Your task to perform on an android device: set an alarm Image 0: 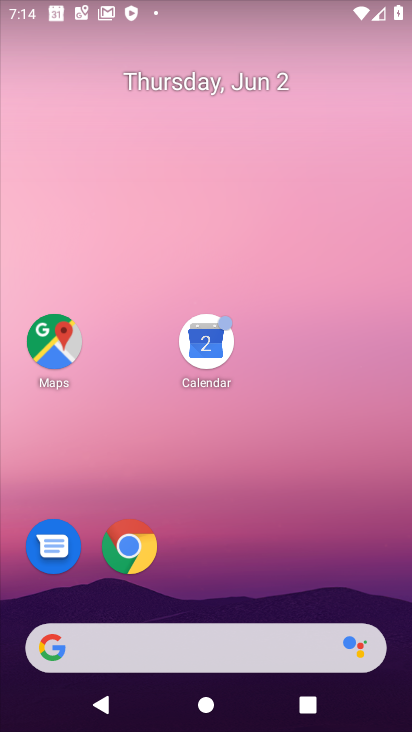
Step 0: drag from (291, 669) to (335, 78)
Your task to perform on an android device: set an alarm Image 1: 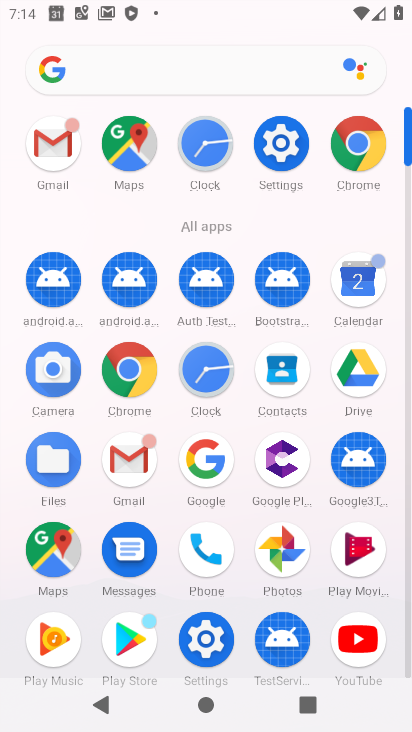
Step 1: click (216, 374)
Your task to perform on an android device: set an alarm Image 2: 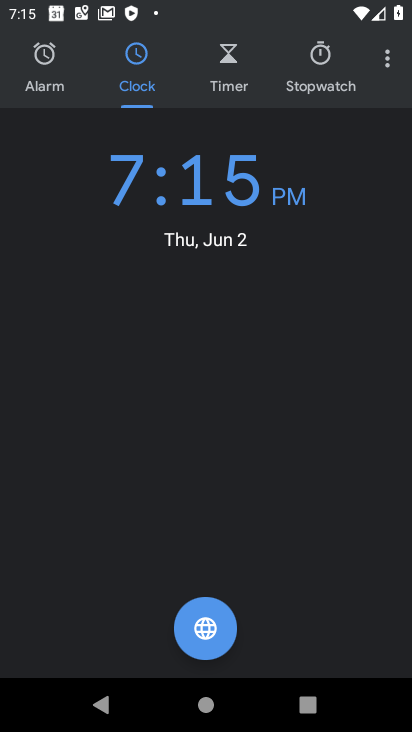
Step 2: click (49, 54)
Your task to perform on an android device: set an alarm Image 3: 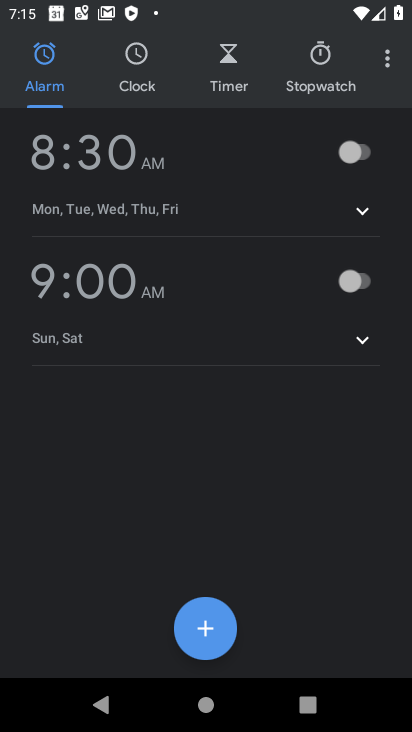
Step 3: task complete